Your task to perform on an android device: find photos in the google photos app Image 0: 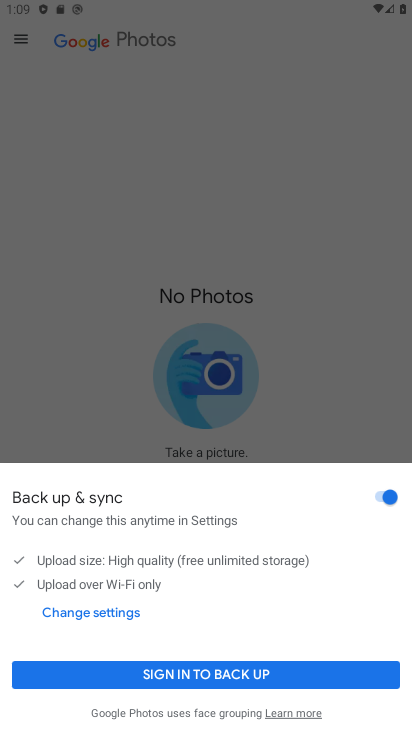
Step 0: click (255, 679)
Your task to perform on an android device: find photos in the google photos app Image 1: 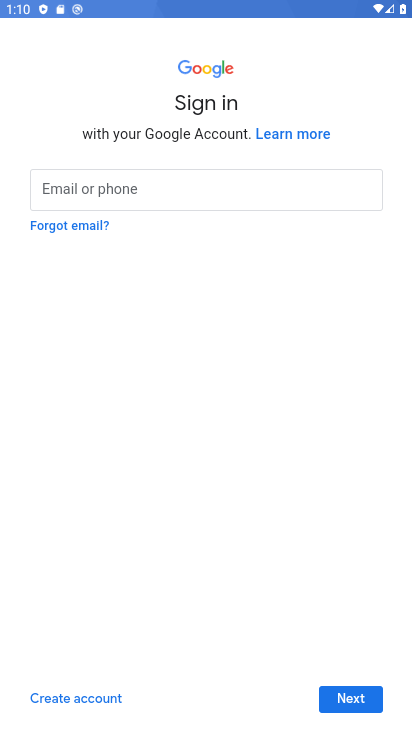
Step 1: task complete